Your task to perform on an android device: open app "PUBG MOBILE" (install if not already installed) Image 0: 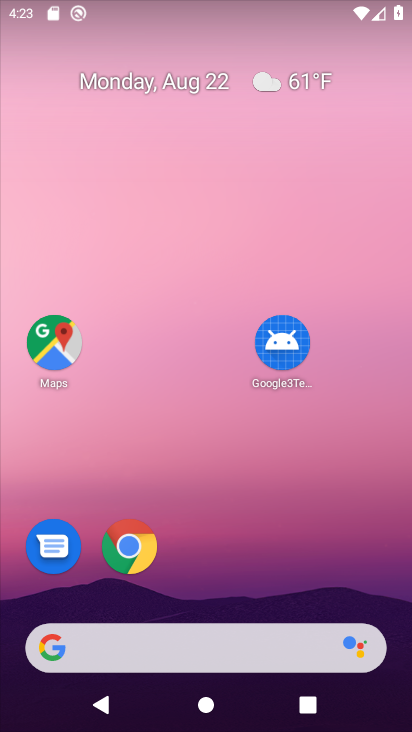
Step 0: drag from (388, 603) to (358, 214)
Your task to perform on an android device: open app "PUBG MOBILE" (install if not already installed) Image 1: 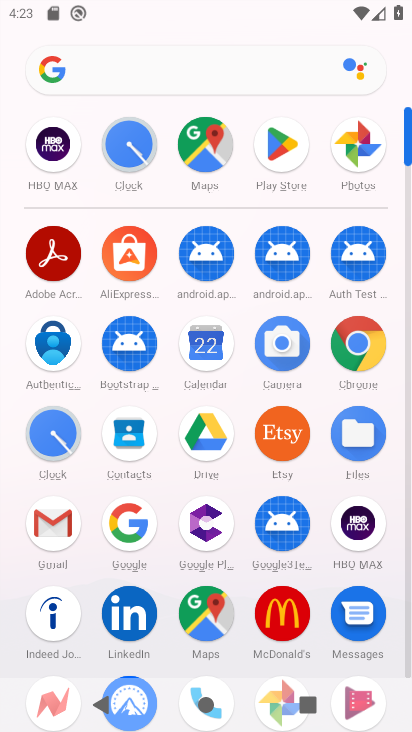
Step 1: click (407, 637)
Your task to perform on an android device: open app "PUBG MOBILE" (install if not already installed) Image 2: 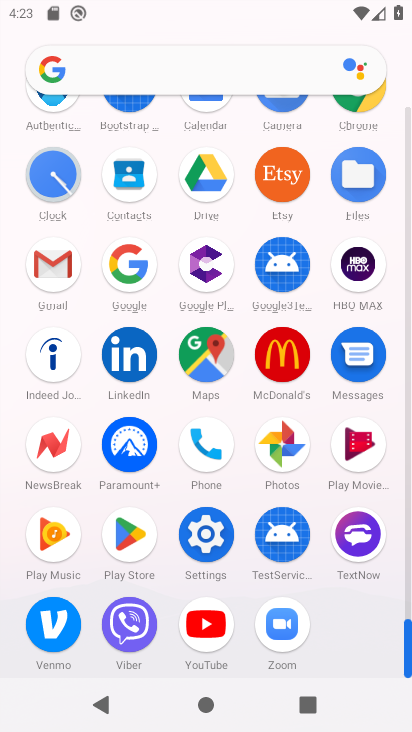
Step 2: click (130, 535)
Your task to perform on an android device: open app "PUBG MOBILE" (install if not already installed) Image 3: 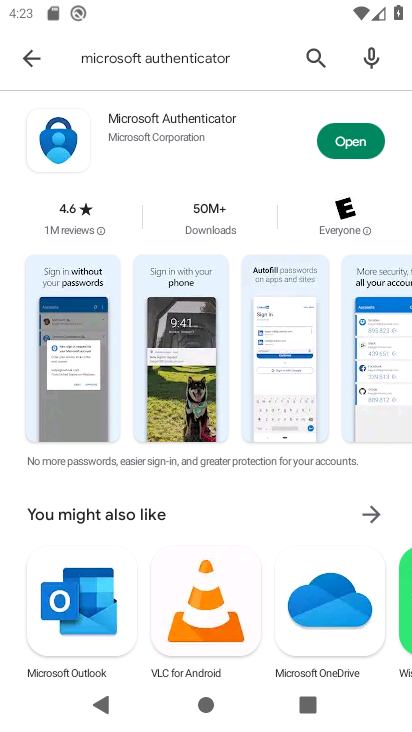
Step 3: click (312, 59)
Your task to perform on an android device: open app "PUBG MOBILE" (install if not already installed) Image 4: 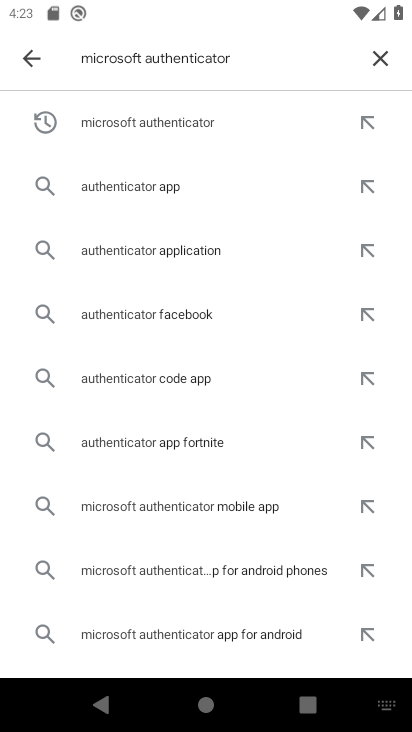
Step 4: click (382, 57)
Your task to perform on an android device: open app "PUBG MOBILE" (install if not already installed) Image 5: 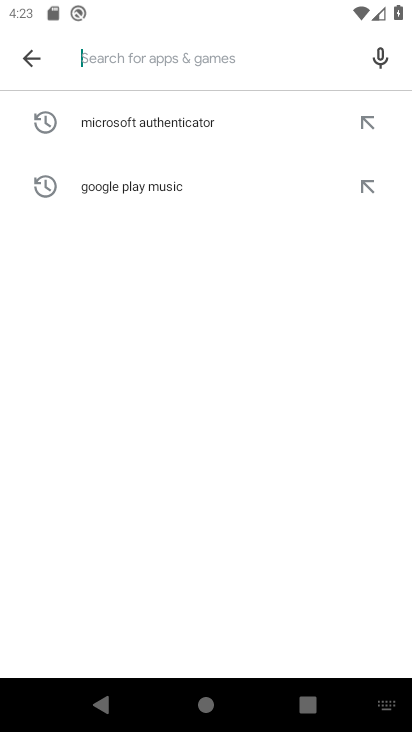
Step 5: type "PUBG MOBILE"
Your task to perform on an android device: open app "PUBG MOBILE" (install if not already installed) Image 6: 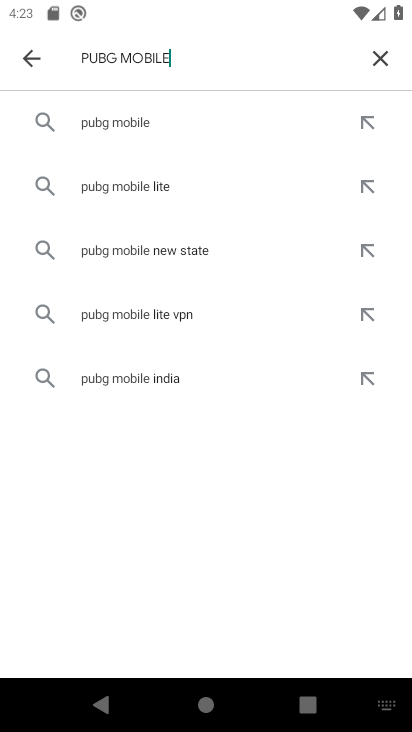
Step 6: click (109, 118)
Your task to perform on an android device: open app "PUBG MOBILE" (install if not already installed) Image 7: 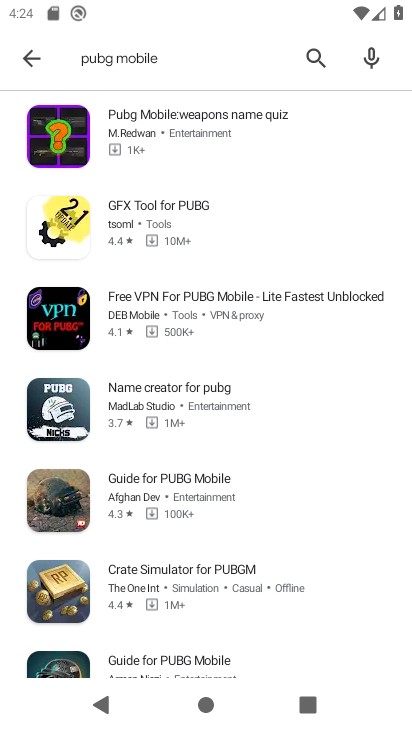
Step 7: task complete